Your task to perform on an android device: toggle wifi Image 0: 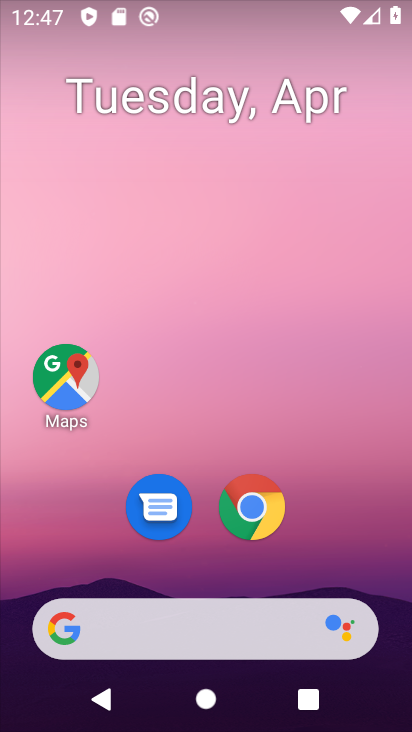
Step 0: drag from (195, 534) to (215, 141)
Your task to perform on an android device: toggle wifi Image 1: 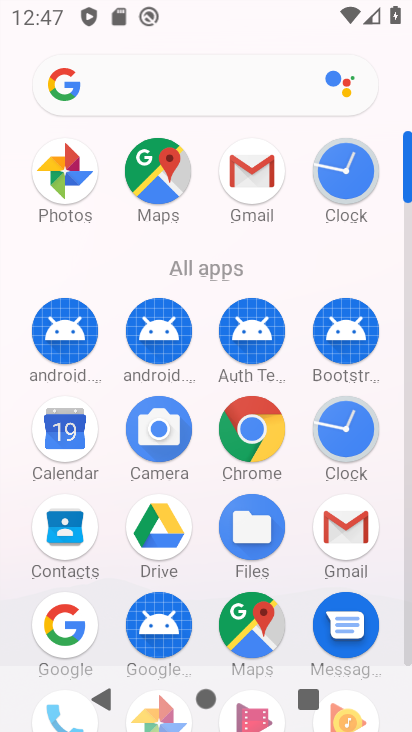
Step 1: drag from (196, 596) to (210, 267)
Your task to perform on an android device: toggle wifi Image 2: 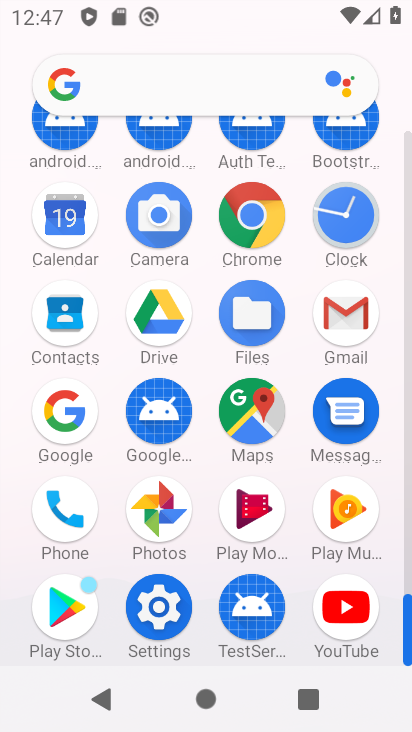
Step 2: click (139, 609)
Your task to perform on an android device: toggle wifi Image 3: 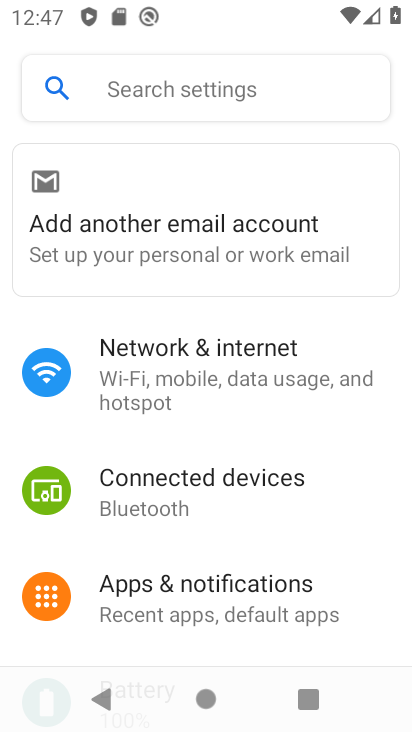
Step 3: click (220, 358)
Your task to perform on an android device: toggle wifi Image 4: 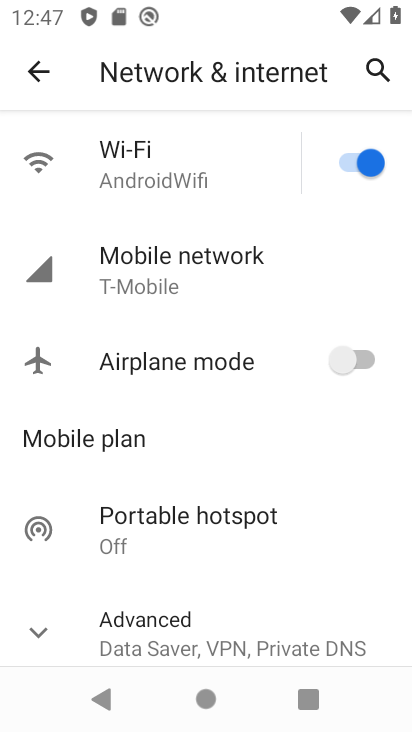
Step 4: click (347, 166)
Your task to perform on an android device: toggle wifi Image 5: 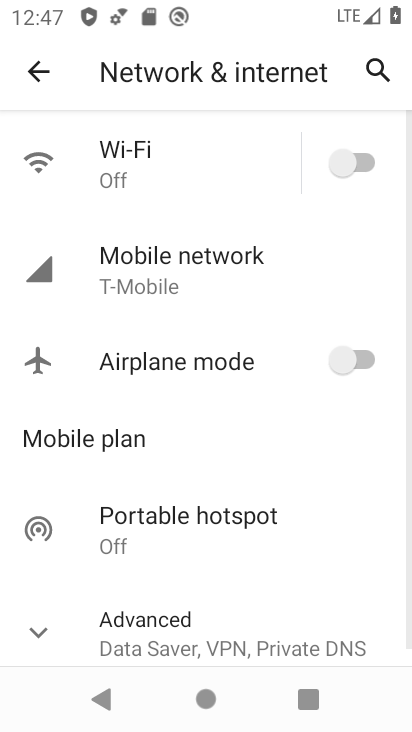
Step 5: task complete